Your task to perform on an android device: Turn off the flashlight Image 0: 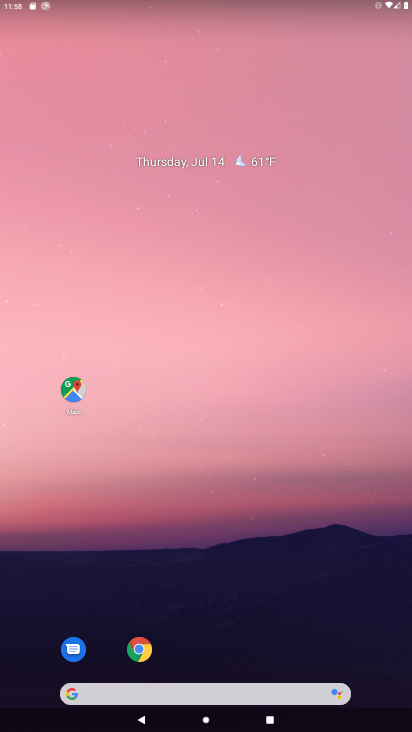
Step 0: drag from (285, 660) to (322, 3)
Your task to perform on an android device: Turn off the flashlight Image 1: 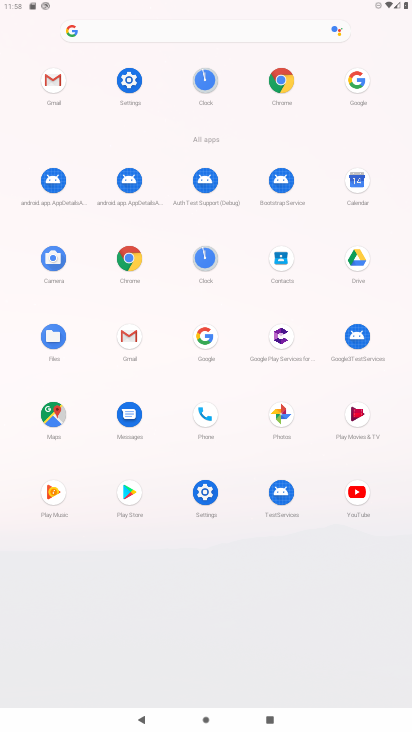
Step 1: task complete